Your task to perform on an android device: How old is the earth? Image 0: 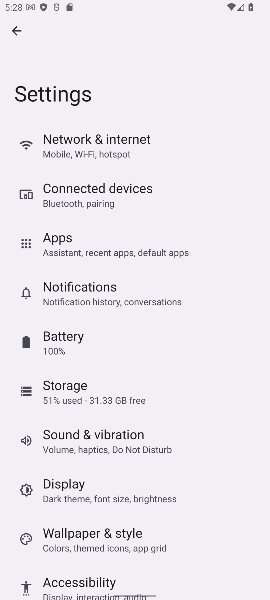
Step 0: press home button
Your task to perform on an android device: How old is the earth? Image 1: 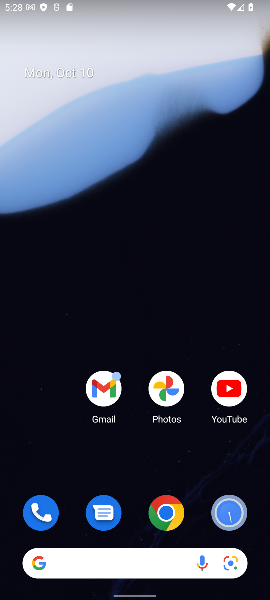
Step 1: click (143, 548)
Your task to perform on an android device: How old is the earth? Image 2: 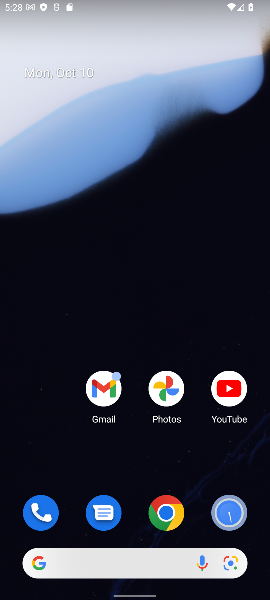
Step 2: click (146, 552)
Your task to perform on an android device: How old is the earth? Image 3: 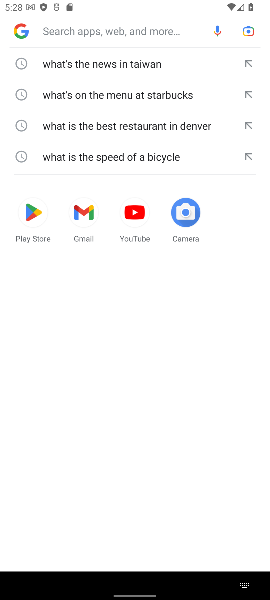
Step 3: type "How old is the earth?"
Your task to perform on an android device: How old is the earth? Image 4: 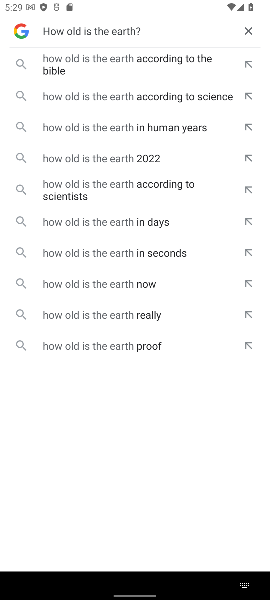
Step 4: click (173, 166)
Your task to perform on an android device: How old is the earth? Image 5: 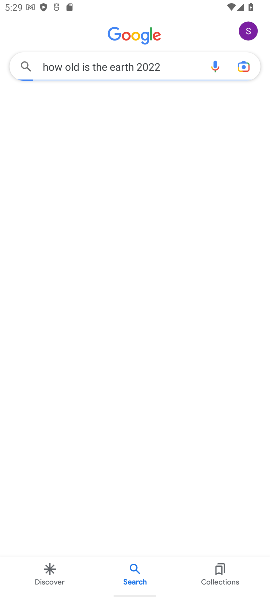
Step 5: task complete